Your task to perform on an android device: open a bookmark in the chrome app Image 0: 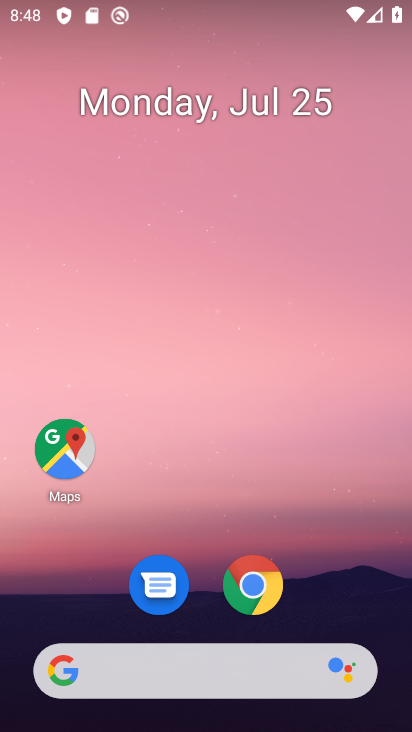
Step 0: press home button
Your task to perform on an android device: open a bookmark in the chrome app Image 1: 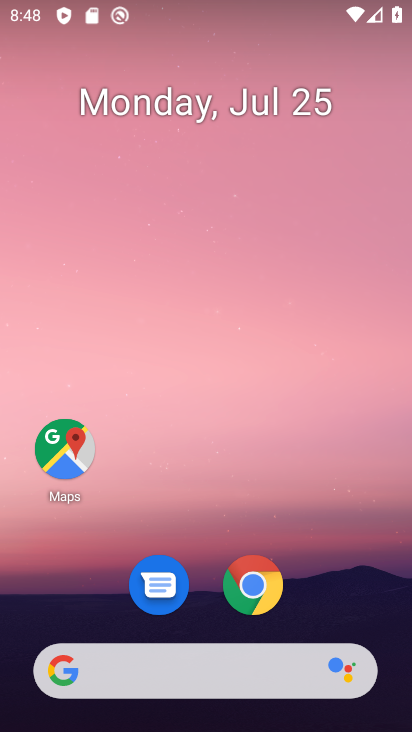
Step 1: click (250, 592)
Your task to perform on an android device: open a bookmark in the chrome app Image 2: 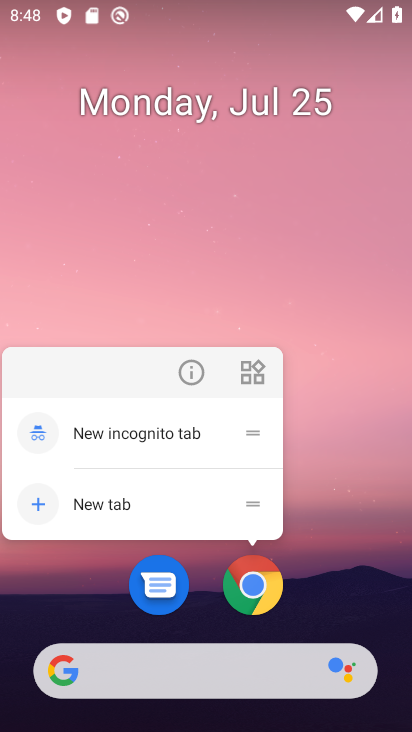
Step 2: click (254, 586)
Your task to perform on an android device: open a bookmark in the chrome app Image 3: 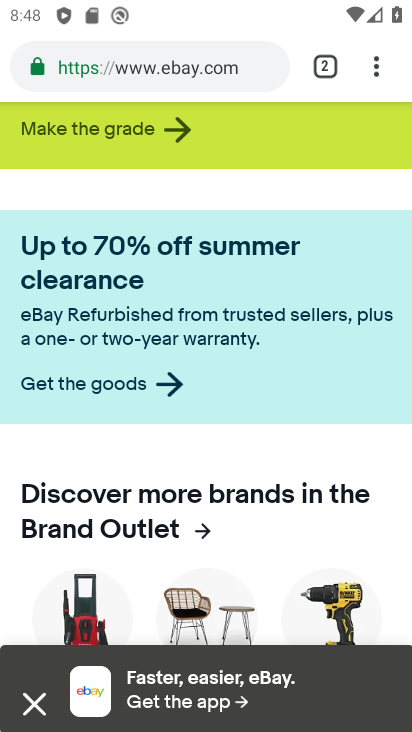
Step 3: task complete